Your task to perform on an android device: Search for pizza restaurants on Maps Image 0: 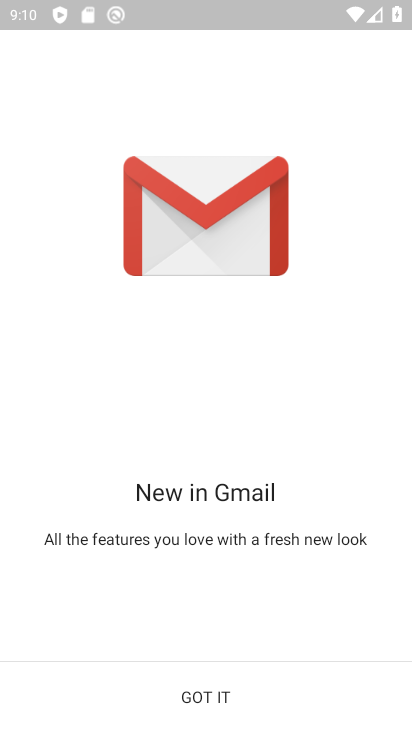
Step 0: press home button
Your task to perform on an android device: Search for pizza restaurants on Maps Image 1: 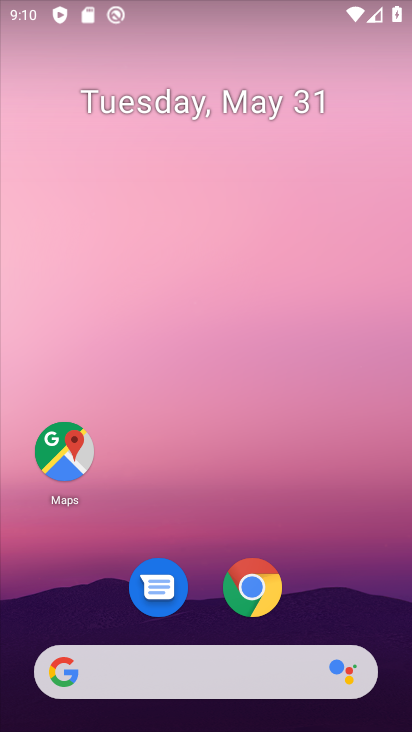
Step 1: drag from (270, 382) to (235, 21)
Your task to perform on an android device: Search for pizza restaurants on Maps Image 2: 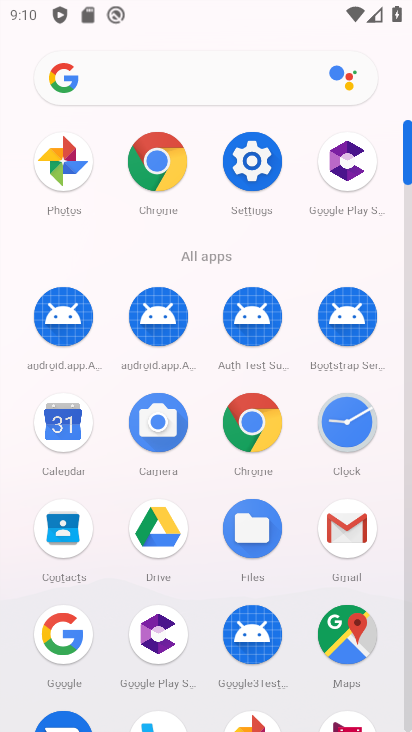
Step 2: click (338, 634)
Your task to perform on an android device: Search for pizza restaurants on Maps Image 3: 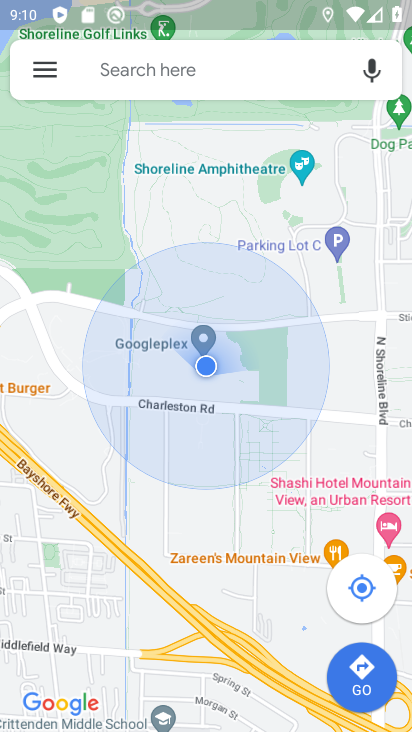
Step 3: click (88, 75)
Your task to perform on an android device: Search for pizza restaurants on Maps Image 4: 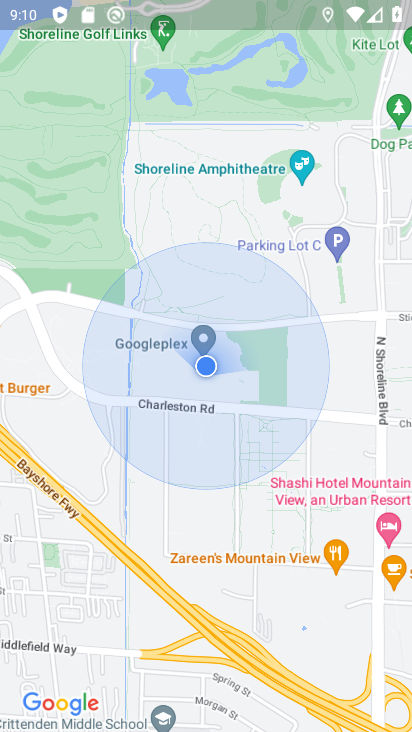
Step 4: drag from (192, 6) to (133, 173)
Your task to perform on an android device: Search for pizza restaurants on Maps Image 5: 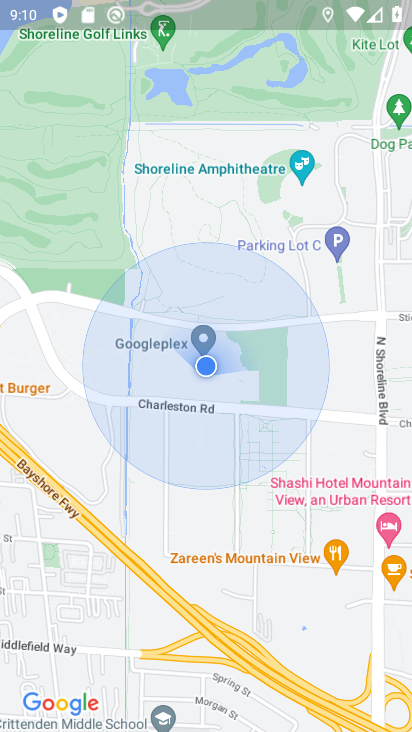
Step 5: click (240, 156)
Your task to perform on an android device: Search for pizza restaurants on Maps Image 6: 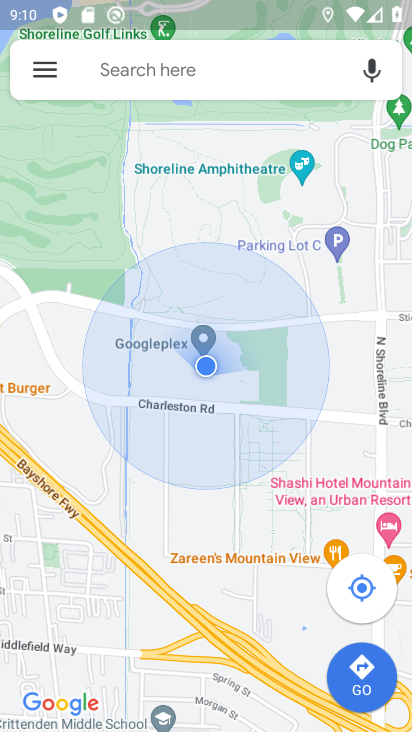
Step 6: click (184, 58)
Your task to perform on an android device: Search for pizza restaurants on Maps Image 7: 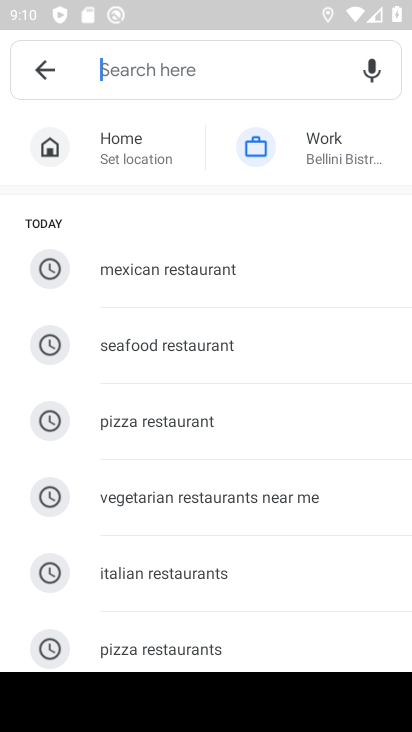
Step 7: type "pizza restaurants"
Your task to perform on an android device: Search for pizza restaurants on Maps Image 8: 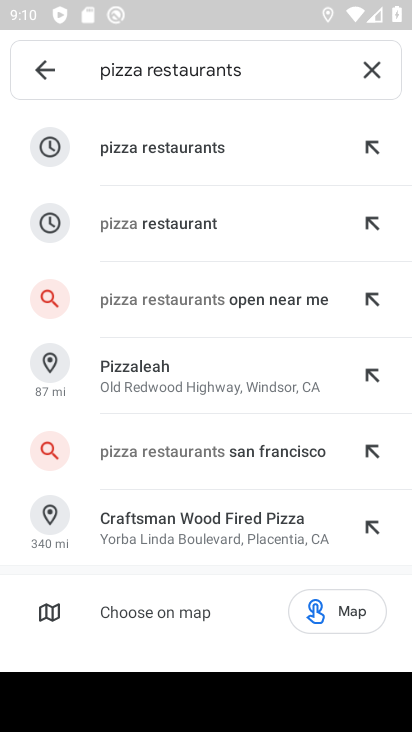
Step 8: click (176, 154)
Your task to perform on an android device: Search for pizza restaurants on Maps Image 9: 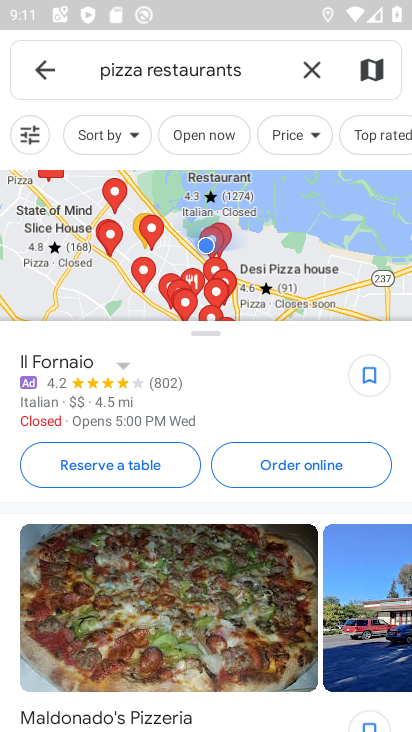
Step 9: task complete